Your task to perform on an android device: Open CNN.com Image 0: 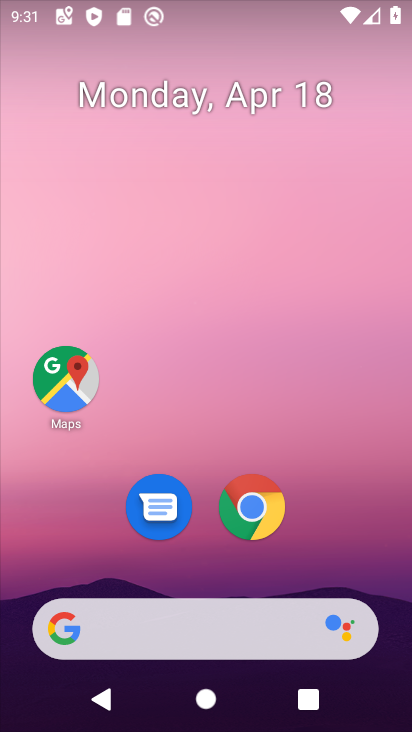
Step 0: click (249, 518)
Your task to perform on an android device: Open CNN.com Image 1: 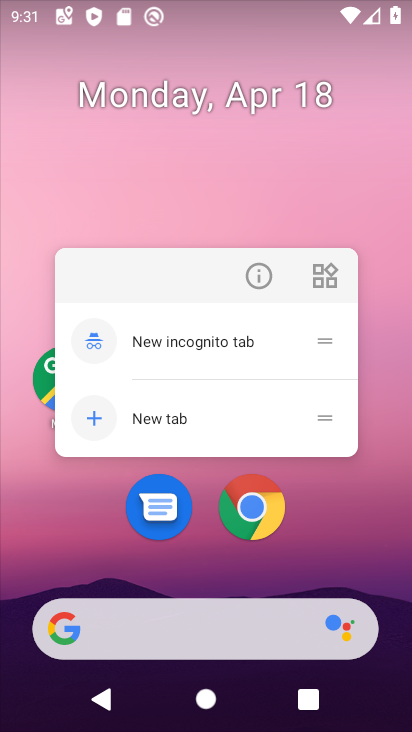
Step 1: click (255, 510)
Your task to perform on an android device: Open CNN.com Image 2: 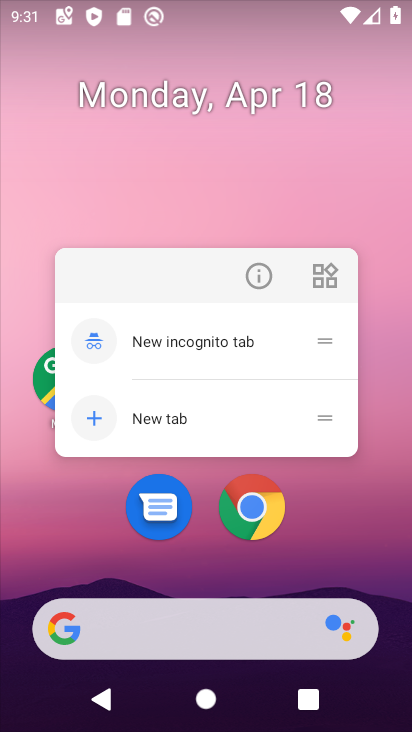
Step 2: click (269, 508)
Your task to perform on an android device: Open CNN.com Image 3: 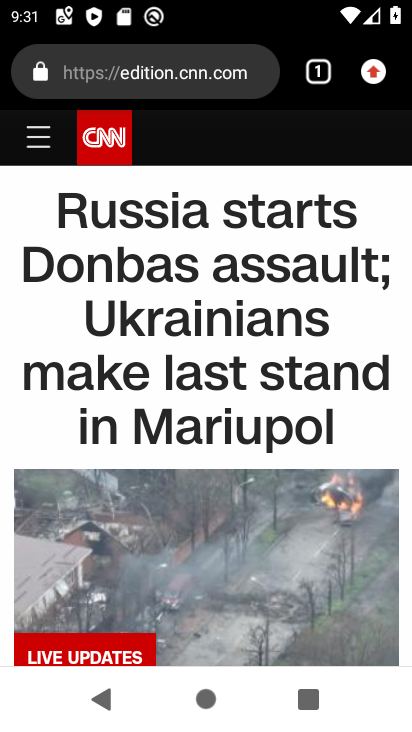
Step 3: click (297, 67)
Your task to perform on an android device: Open CNN.com Image 4: 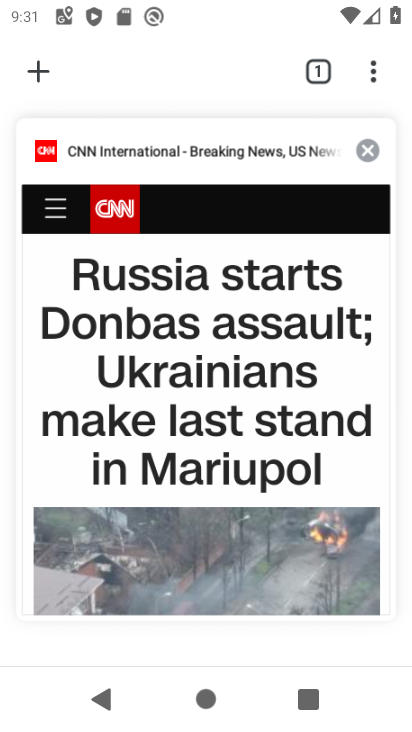
Step 4: click (30, 71)
Your task to perform on an android device: Open CNN.com Image 5: 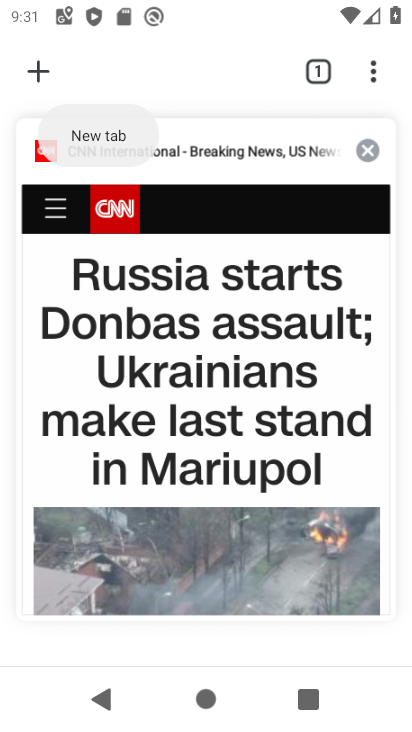
Step 5: click (130, 250)
Your task to perform on an android device: Open CNN.com Image 6: 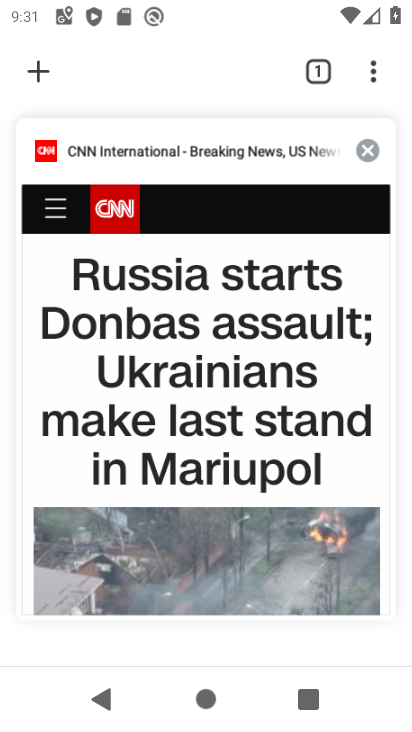
Step 6: click (160, 260)
Your task to perform on an android device: Open CNN.com Image 7: 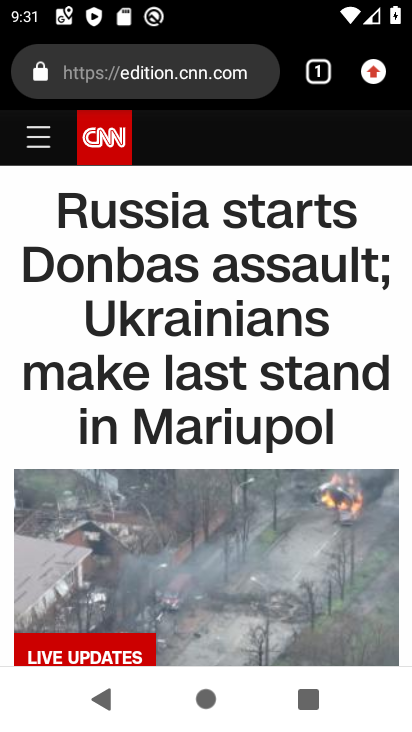
Step 7: task complete